Your task to perform on an android device: check out phone information Image 0: 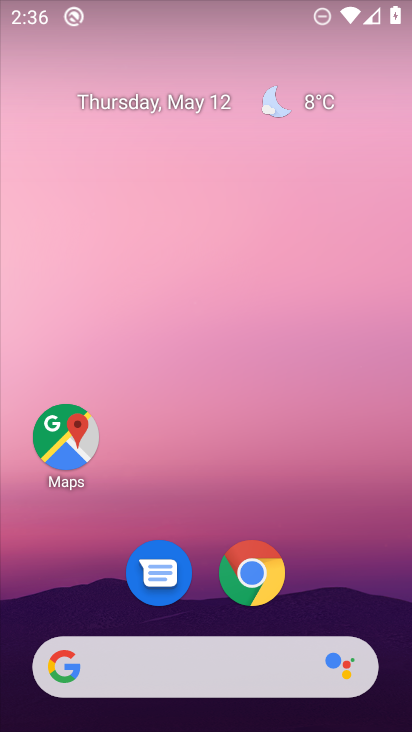
Step 0: drag from (353, 576) to (134, 77)
Your task to perform on an android device: check out phone information Image 1: 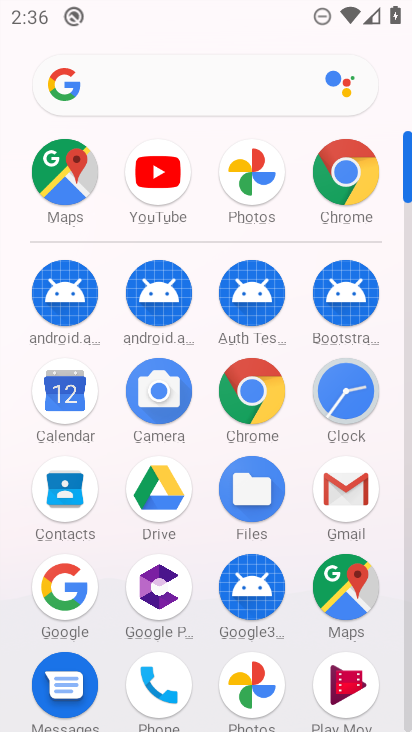
Step 1: drag from (211, 605) to (142, 132)
Your task to perform on an android device: check out phone information Image 2: 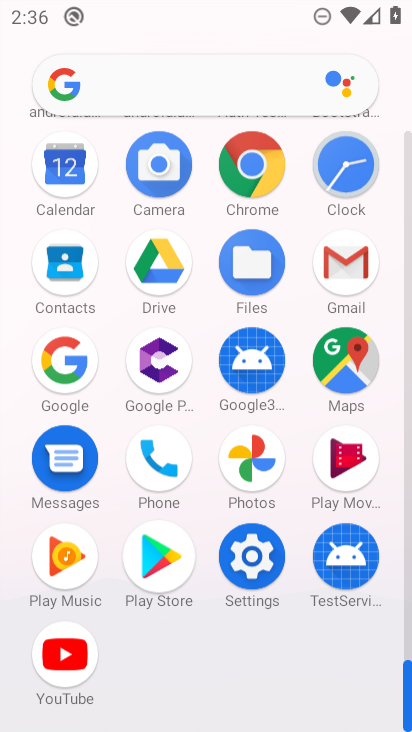
Step 2: drag from (225, 483) to (191, 153)
Your task to perform on an android device: check out phone information Image 3: 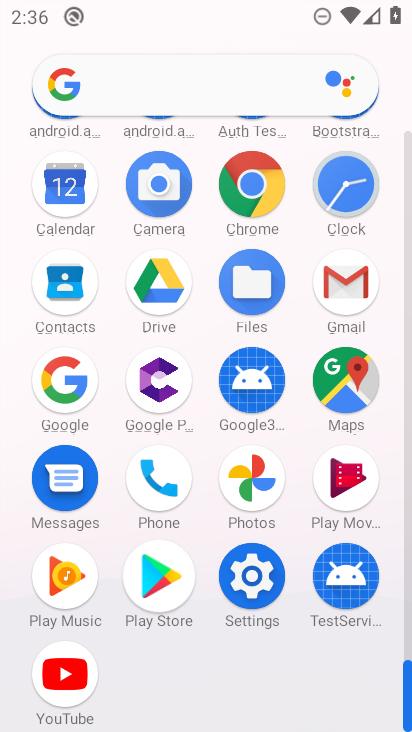
Step 3: click (250, 583)
Your task to perform on an android device: check out phone information Image 4: 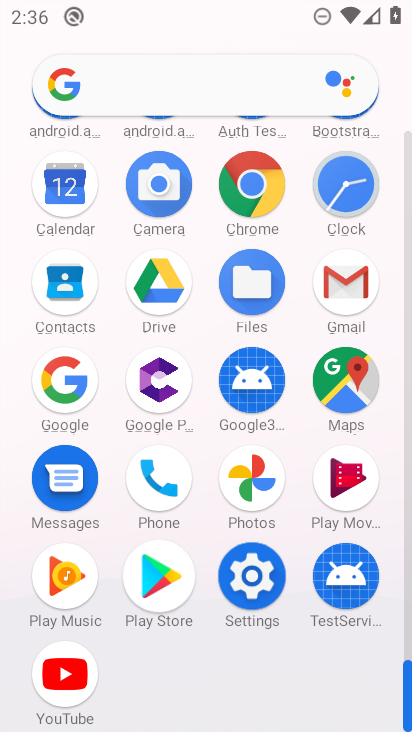
Step 4: click (250, 583)
Your task to perform on an android device: check out phone information Image 5: 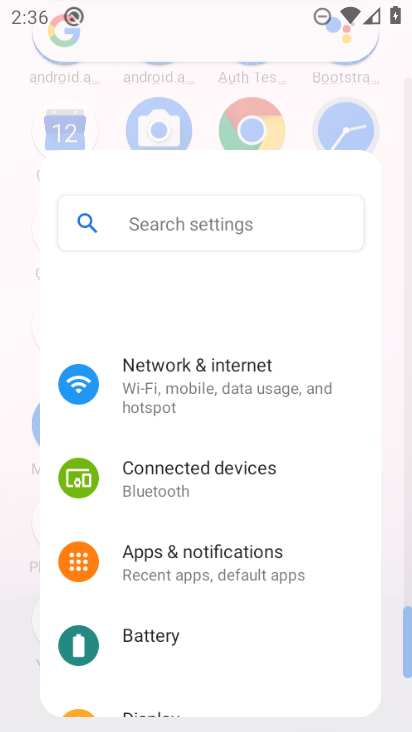
Step 5: click (251, 583)
Your task to perform on an android device: check out phone information Image 6: 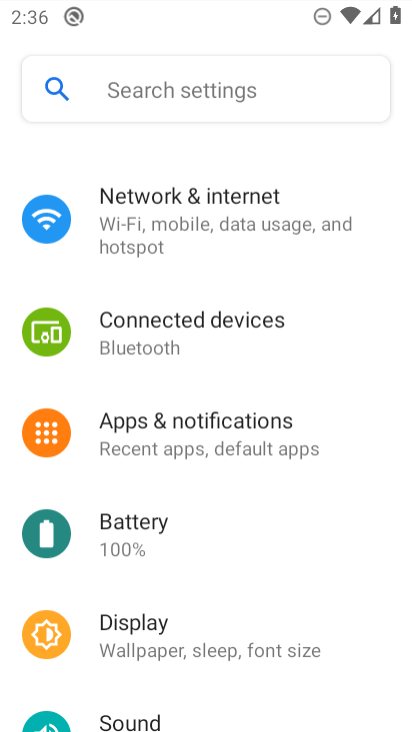
Step 6: click (251, 584)
Your task to perform on an android device: check out phone information Image 7: 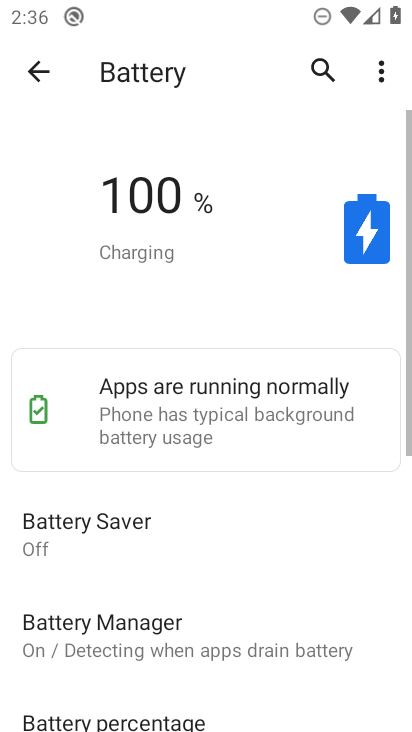
Step 7: click (27, 63)
Your task to perform on an android device: check out phone information Image 8: 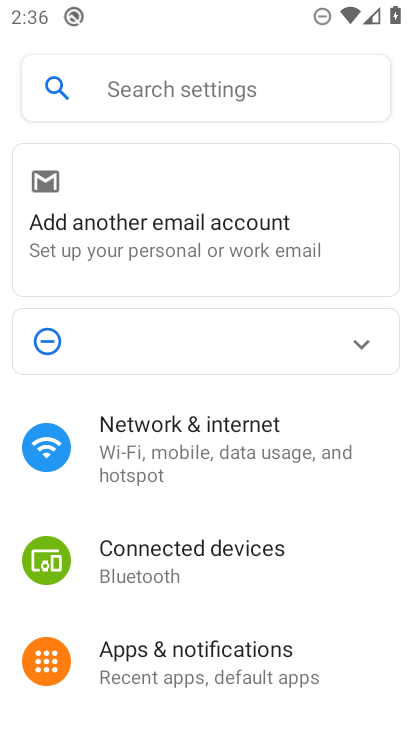
Step 8: drag from (173, 523) to (113, 47)
Your task to perform on an android device: check out phone information Image 9: 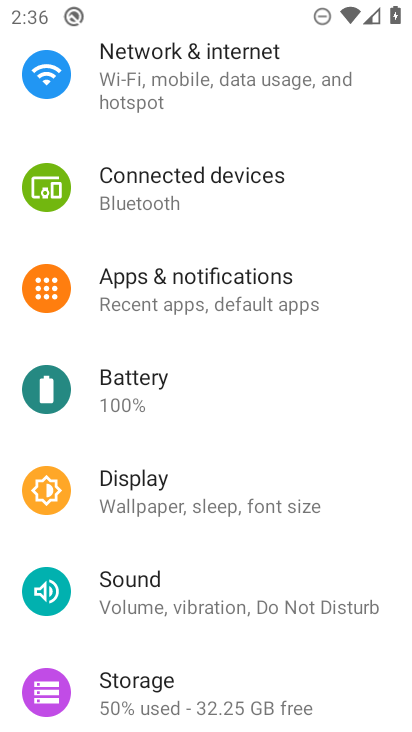
Step 9: drag from (197, 517) to (194, 226)
Your task to perform on an android device: check out phone information Image 10: 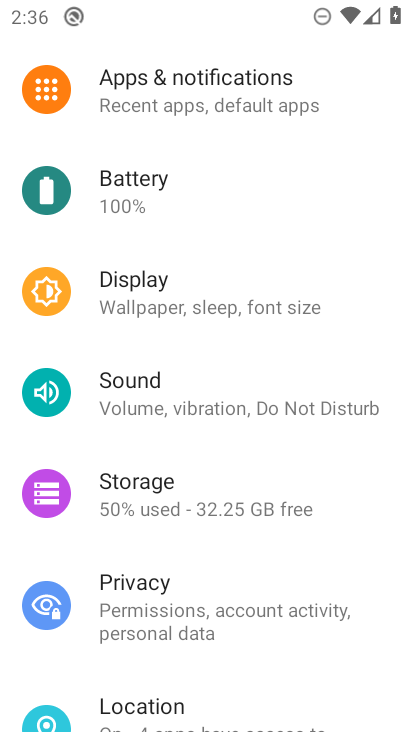
Step 10: drag from (202, 559) to (144, 118)
Your task to perform on an android device: check out phone information Image 11: 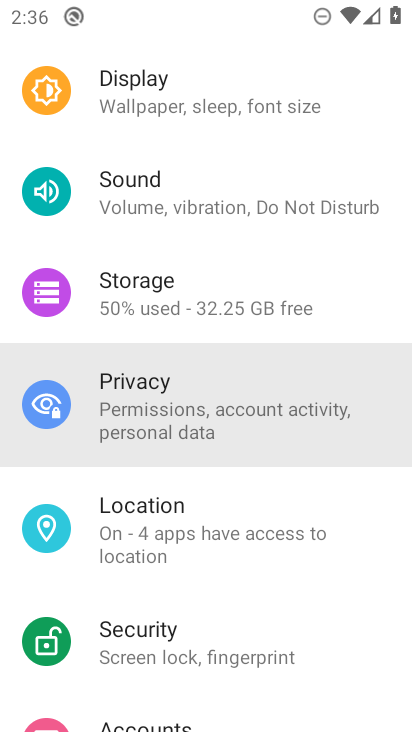
Step 11: drag from (179, 223) to (126, 31)
Your task to perform on an android device: check out phone information Image 12: 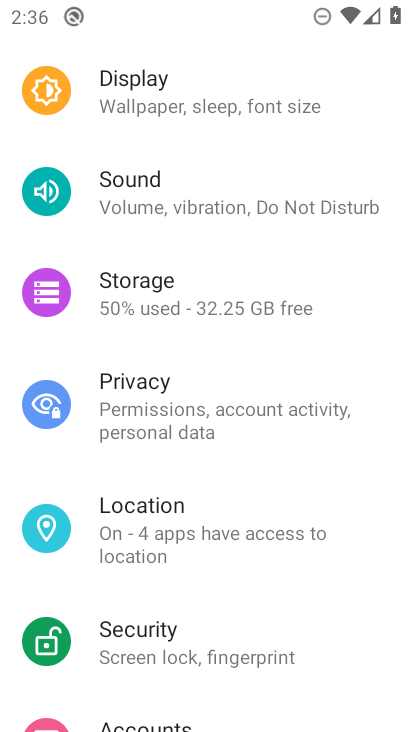
Step 12: drag from (257, 375) to (217, 44)
Your task to perform on an android device: check out phone information Image 13: 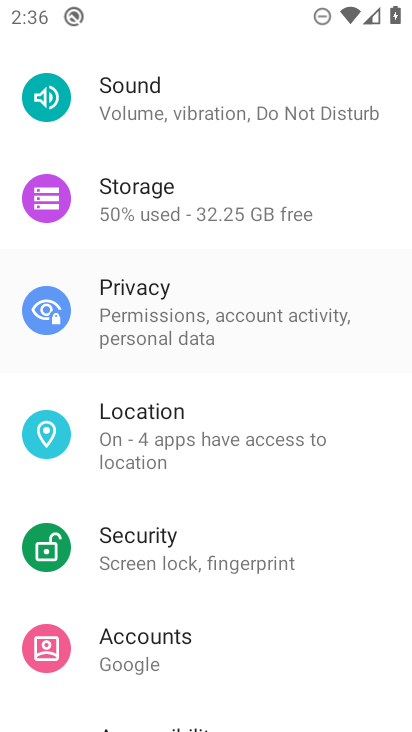
Step 13: drag from (219, 357) to (184, 92)
Your task to perform on an android device: check out phone information Image 14: 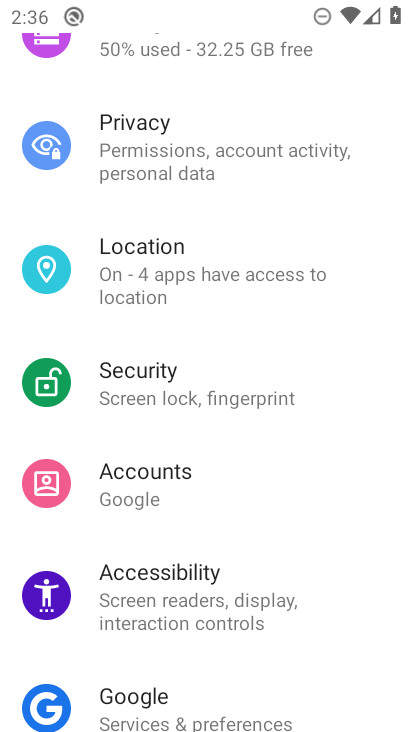
Step 14: drag from (192, 497) to (213, 198)
Your task to perform on an android device: check out phone information Image 15: 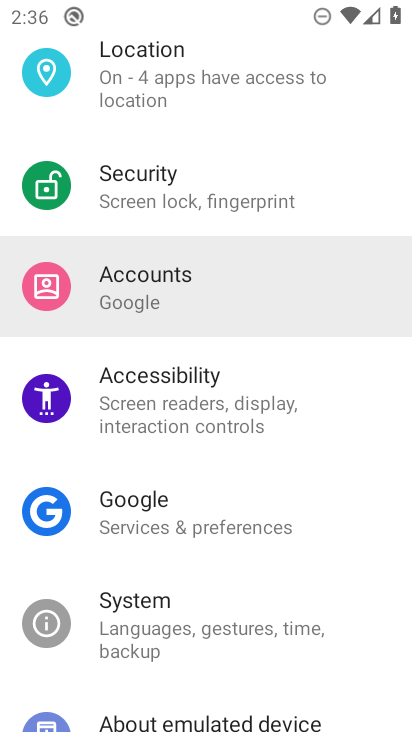
Step 15: drag from (281, 528) to (242, 108)
Your task to perform on an android device: check out phone information Image 16: 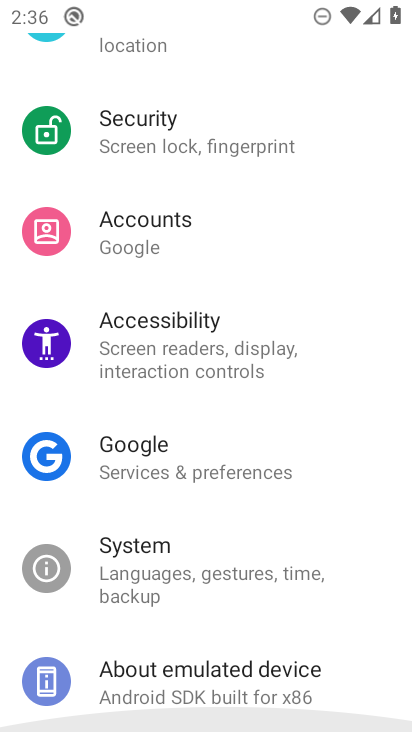
Step 16: drag from (203, 546) to (156, 244)
Your task to perform on an android device: check out phone information Image 17: 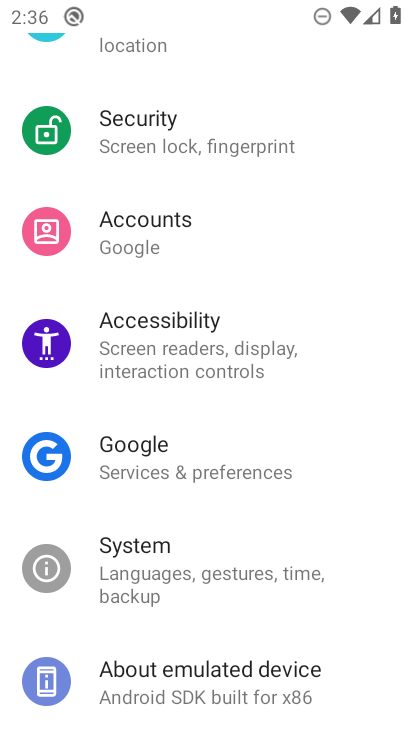
Step 17: click (176, 690)
Your task to perform on an android device: check out phone information Image 18: 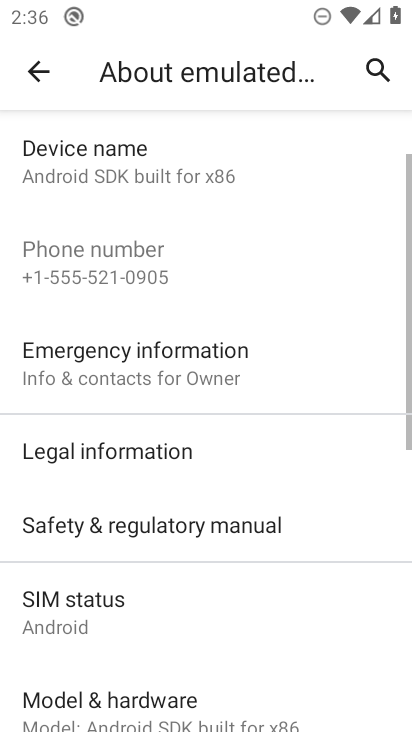
Step 18: click (176, 690)
Your task to perform on an android device: check out phone information Image 19: 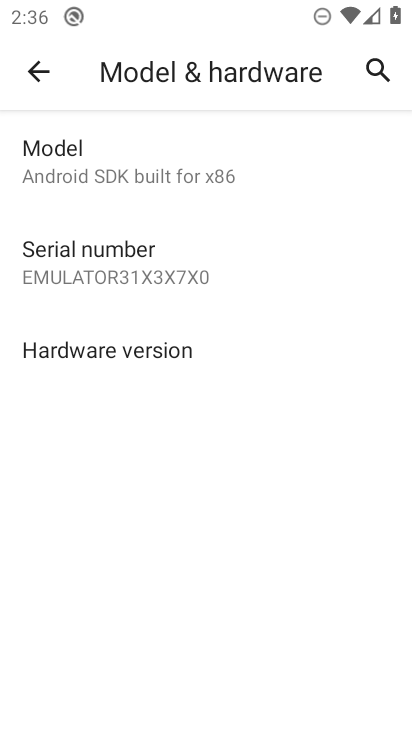
Step 19: click (31, 73)
Your task to perform on an android device: check out phone information Image 20: 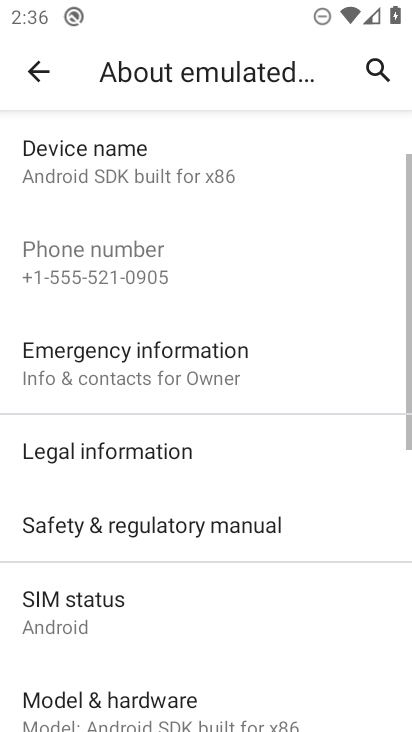
Step 20: task complete